Your task to perform on an android device: change the clock display to digital Image 0: 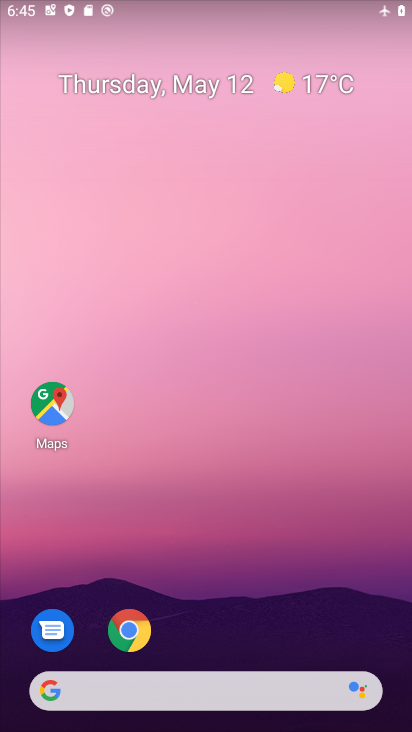
Step 0: drag from (304, 635) to (196, 124)
Your task to perform on an android device: change the clock display to digital Image 1: 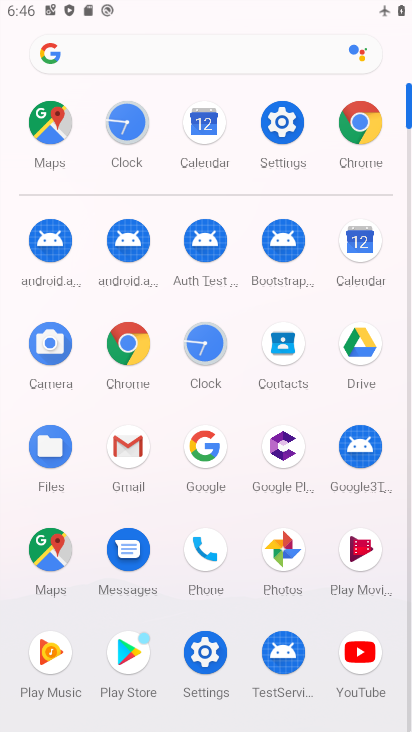
Step 1: click (116, 117)
Your task to perform on an android device: change the clock display to digital Image 2: 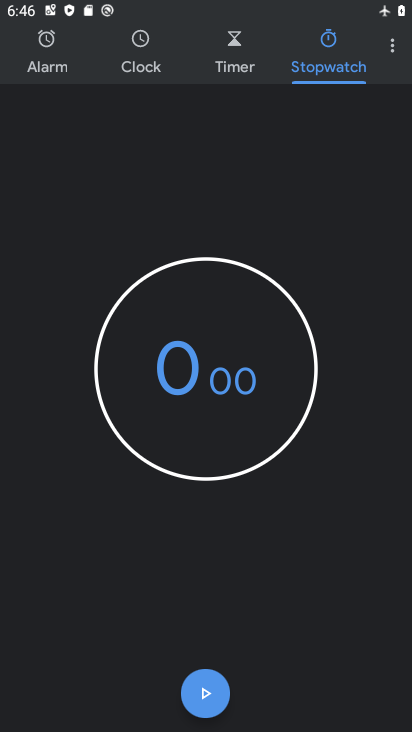
Step 2: click (391, 45)
Your task to perform on an android device: change the clock display to digital Image 3: 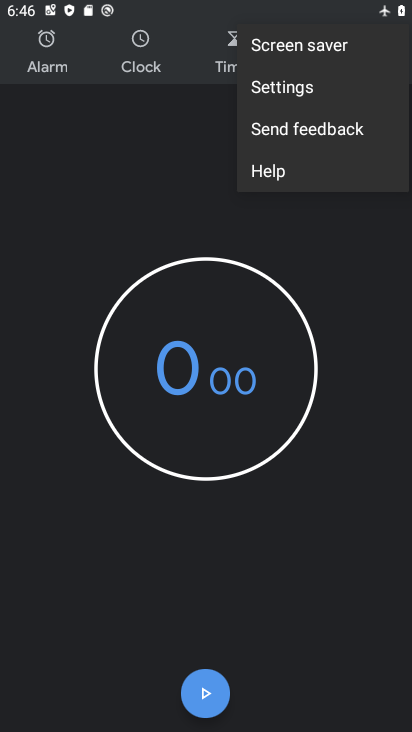
Step 3: click (293, 85)
Your task to perform on an android device: change the clock display to digital Image 4: 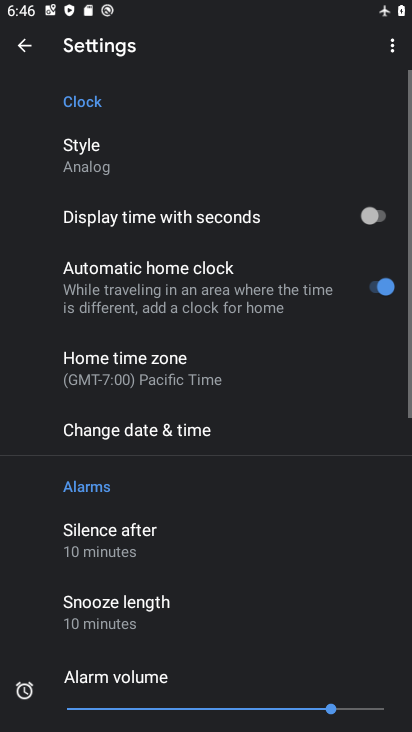
Step 4: click (154, 151)
Your task to perform on an android device: change the clock display to digital Image 5: 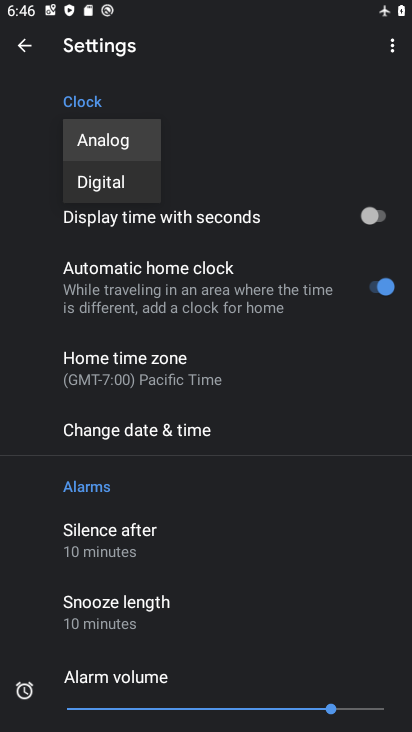
Step 5: click (100, 187)
Your task to perform on an android device: change the clock display to digital Image 6: 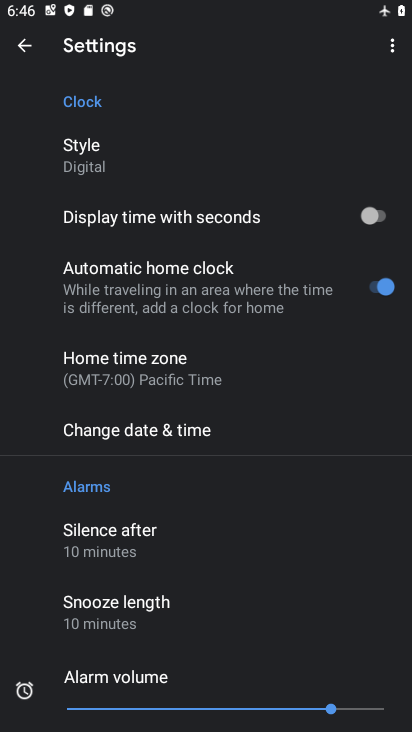
Step 6: task complete